Your task to perform on an android device: turn on notifications settings in the gmail app Image 0: 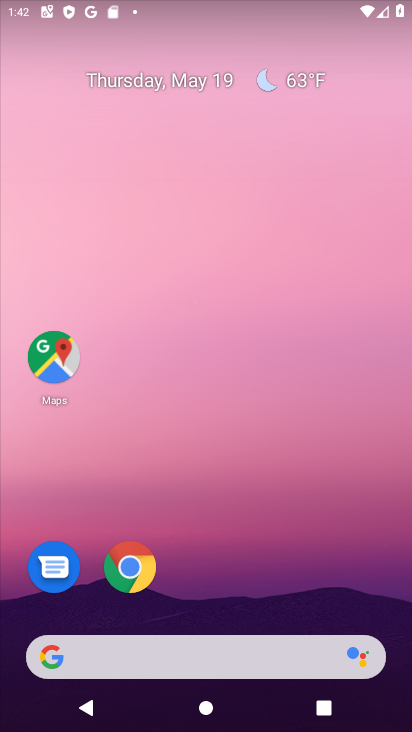
Step 0: drag from (281, 491) to (248, 0)
Your task to perform on an android device: turn on notifications settings in the gmail app Image 1: 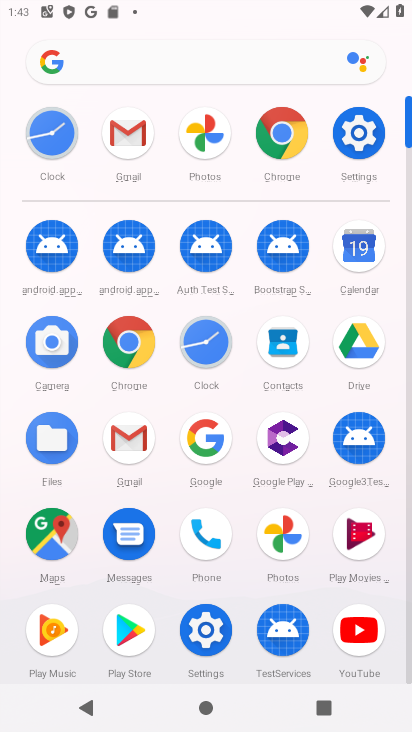
Step 1: click (110, 138)
Your task to perform on an android device: turn on notifications settings in the gmail app Image 2: 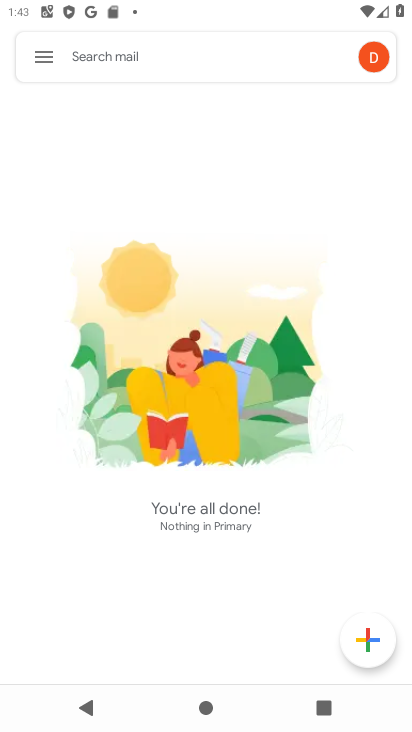
Step 2: click (47, 65)
Your task to perform on an android device: turn on notifications settings in the gmail app Image 3: 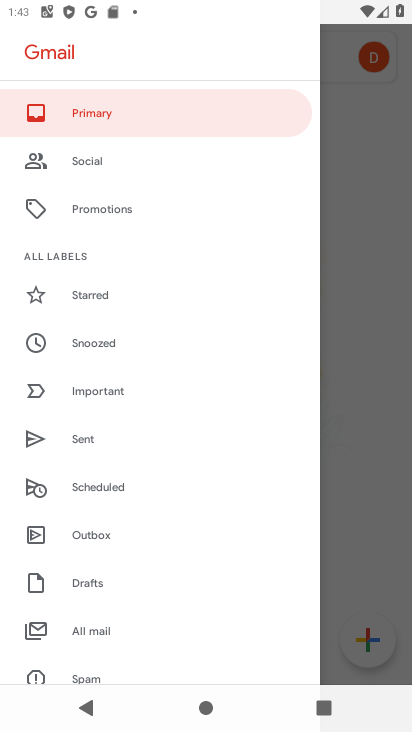
Step 3: drag from (141, 604) to (126, 130)
Your task to perform on an android device: turn on notifications settings in the gmail app Image 4: 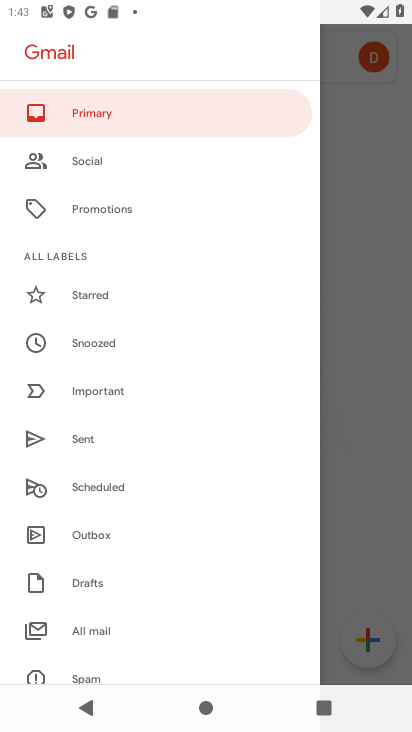
Step 4: drag from (140, 581) to (200, 255)
Your task to perform on an android device: turn on notifications settings in the gmail app Image 5: 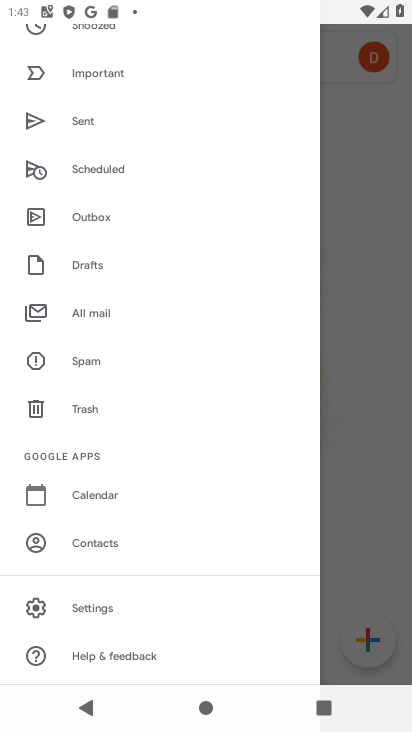
Step 5: click (81, 611)
Your task to perform on an android device: turn on notifications settings in the gmail app Image 6: 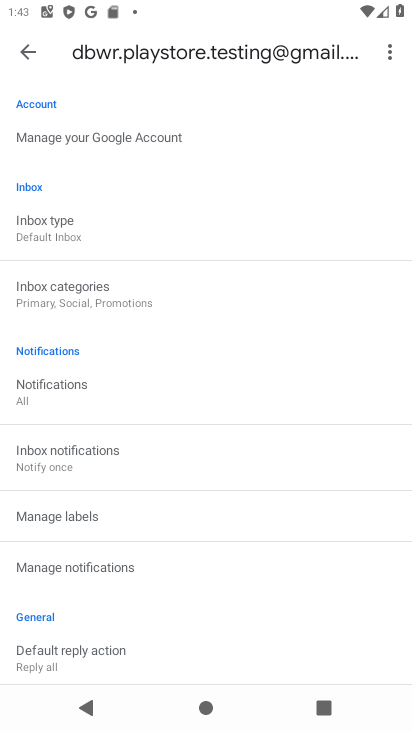
Step 6: click (39, 386)
Your task to perform on an android device: turn on notifications settings in the gmail app Image 7: 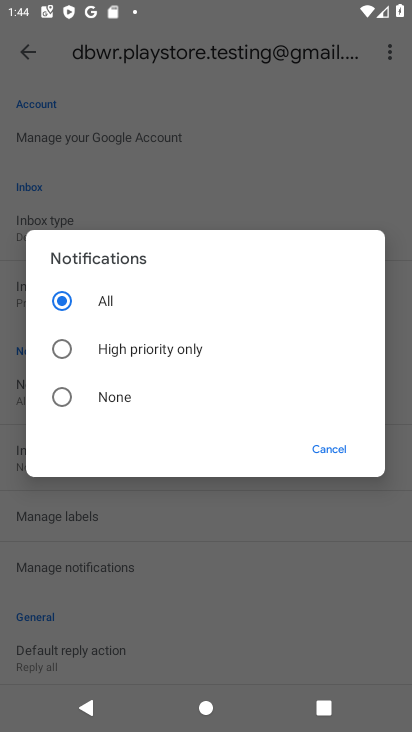
Step 7: task complete